Your task to perform on an android device: choose inbox layout in the gmail app Image 0: 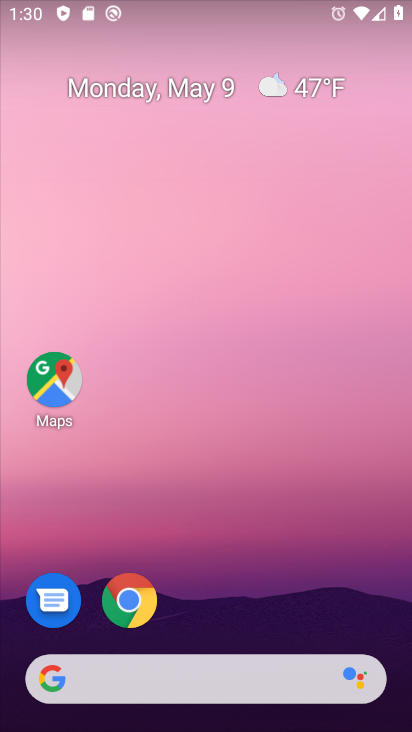
Step 0: drag from (231, 671) to (206, 184)
Your task to perform on an android device: choose inbox layout in the gmail app Image 1: 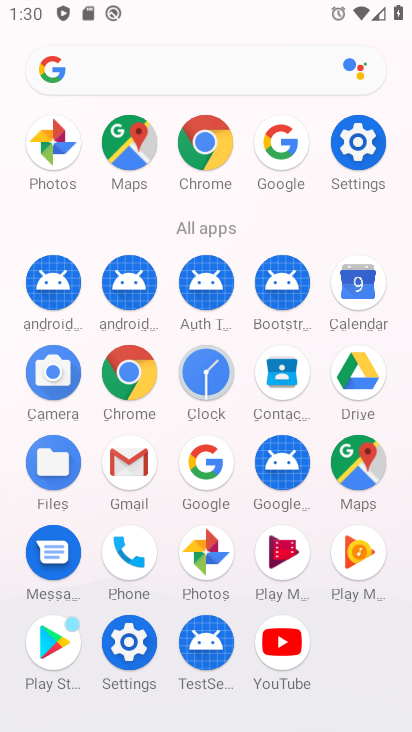
Step 1: click (144, 465)
Your task to perform on an android device: choose inbox layout in the gmail app Image 2: 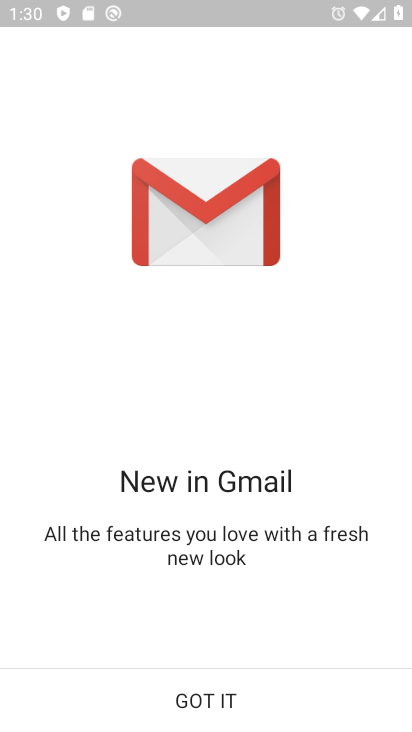
Step 2: click (201, 690)
Your task to perform on an android device: choose inbox layout in the gmail app Image 3: 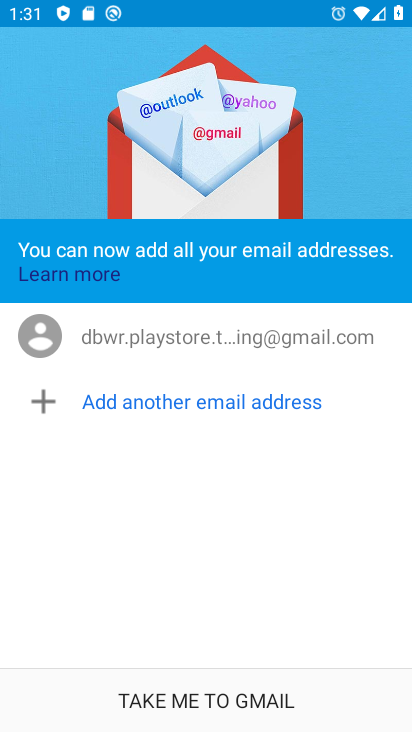
Step 3: click (237, 694)
Your task to perform on an android device: choose inbox layout in the gmail app Image 4: 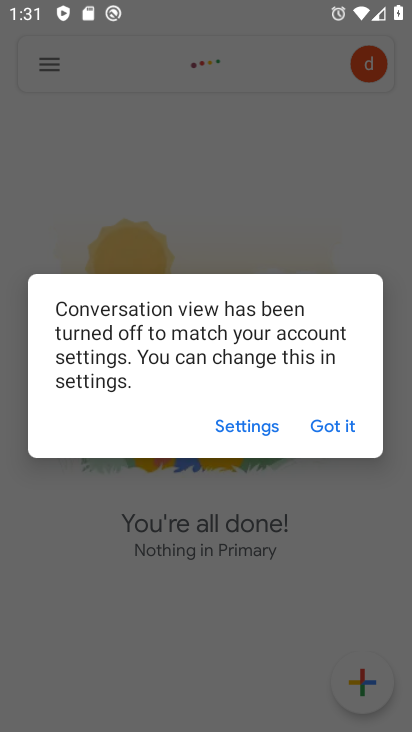
Step 4: click (334, 430)
Your task to perform on an android device: choose inbox layout in the gmail app Image 5: 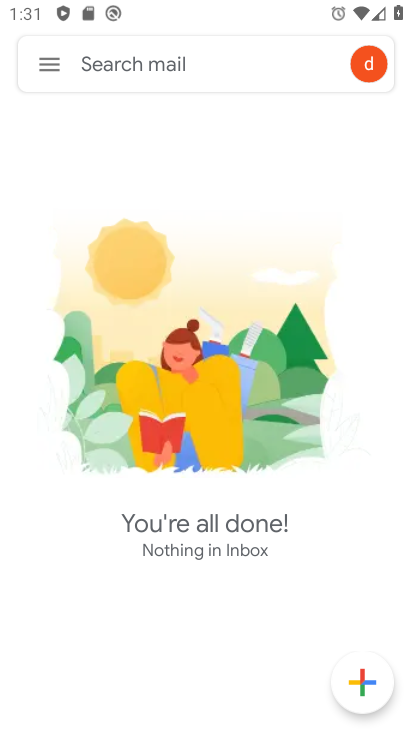
Step 5: click (49, 70)
Your task to perform on an android device: choose inbox layout in the gmail app Image 6: 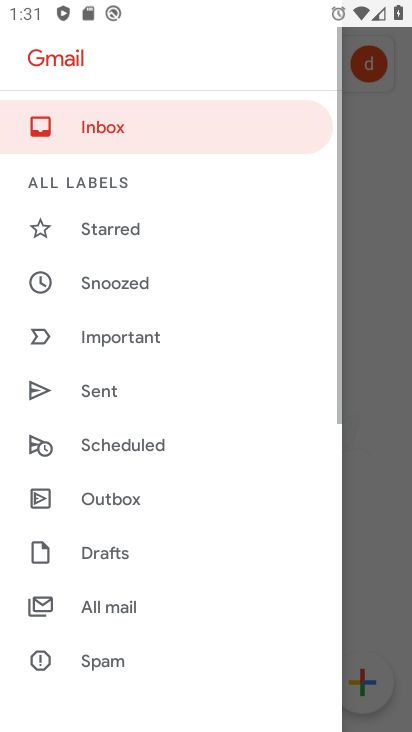
Step 6: drag from (181, 651) to (156, 187)
Your task to perform on an android device: choose inbox layout in the gmail app Image 7: 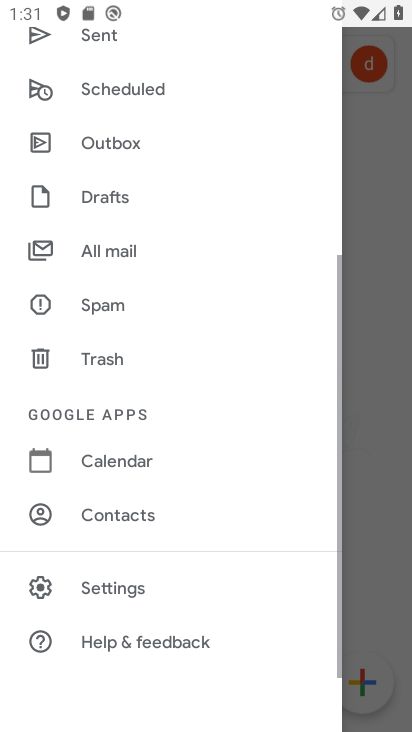
Step 7: click (138, 586)
Your task to perform on an android device: choose inbox layout in the gmail app Image 8: 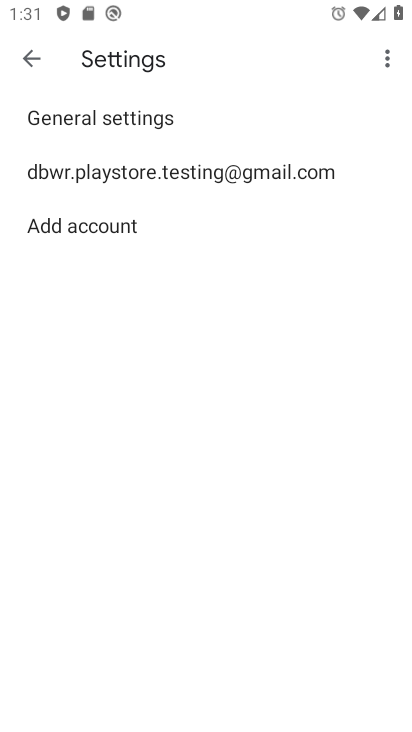
Step 8: click (133, 174)
Your task to perform on an android device: choose inbox layout in the gmail app Image 9: 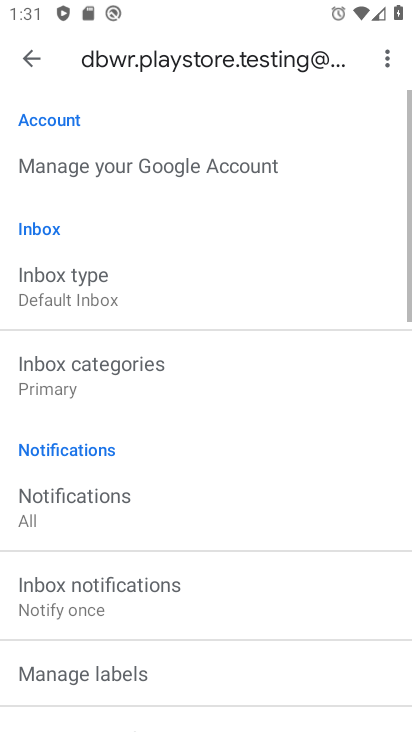
Step 9: click (92, 283)
Your task to perform on an android device: choose inbox layout in the gmail app Image 10: 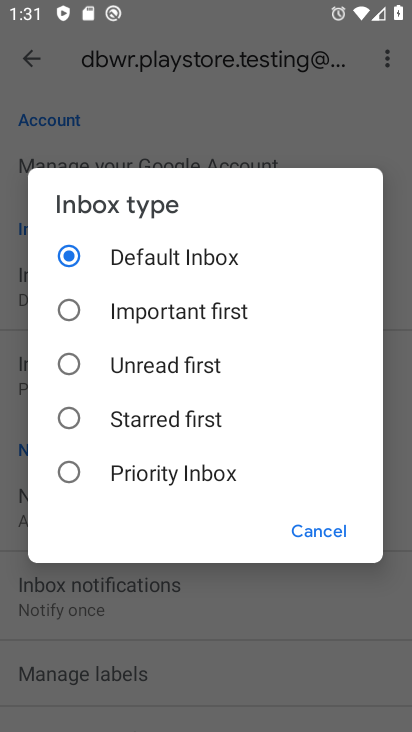
Step 10: click (165, 475)
Your task to perform on an android device: choose inbox layout in the gmail app Image 11: 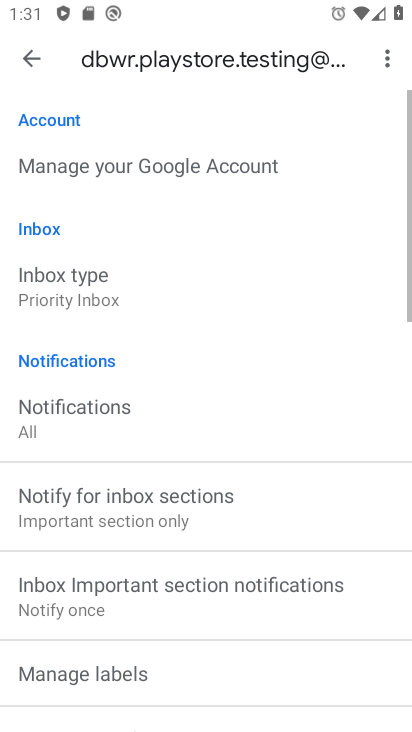
Step 11: task complete